Your task to perform on an android device: turn on javascript in the chrome app Image 0: 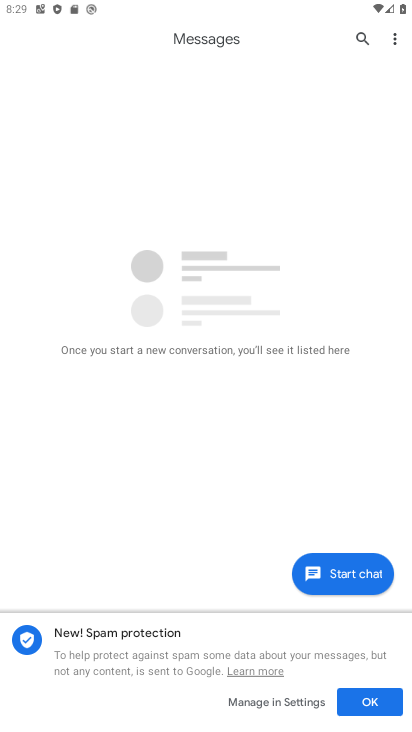
Step 0: press home button
Your task to perform on an android device: turn on javascript in the chrome app Image 1: 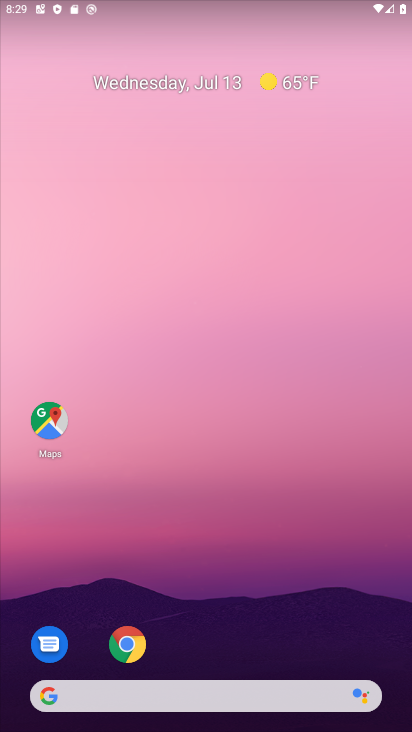
Step 1: drag from (307, 619) to (268, 154)
Your task to perform on an android device: turn on javascript in the chrome app Image 2: 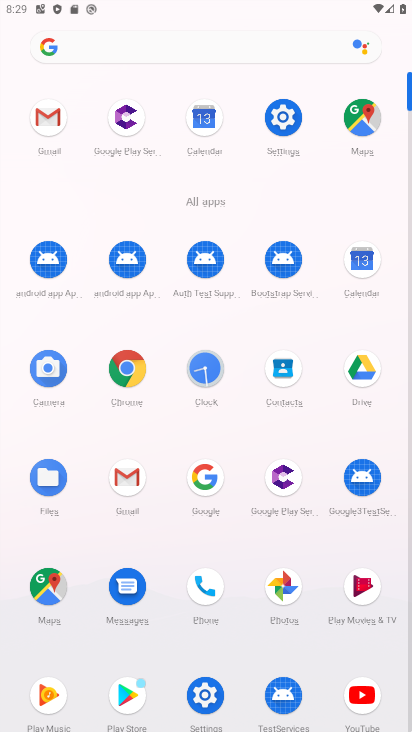
Step 2: click (125, 379)
Your task to perform on an android device: turn on javascript in the chrome app Image 3: 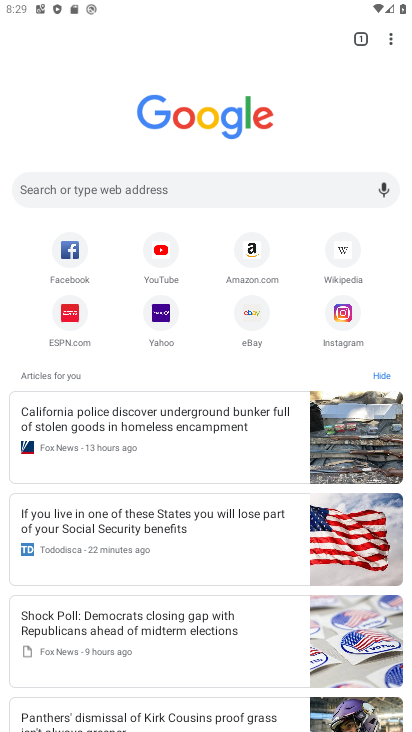
Step 3: drag from (384, 24) to (275, 331)
Your task to perform on an android device: turn on javascript in the chrome app Image 4: 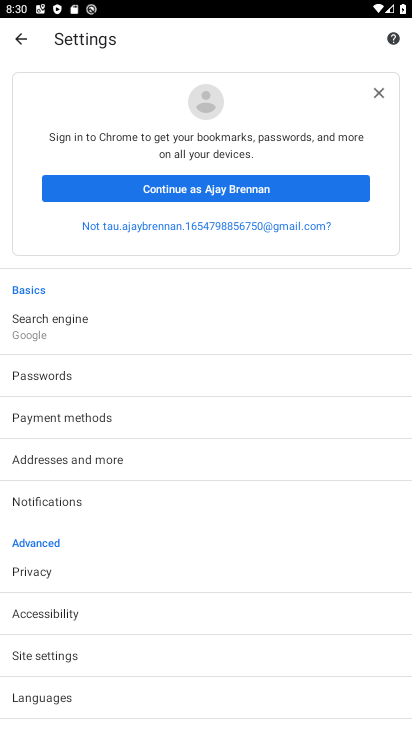
Step 4: drag from (217, 649) to (197, 251)
Your task to perform on an android device: turn on javascript in the chrome app Image 5: 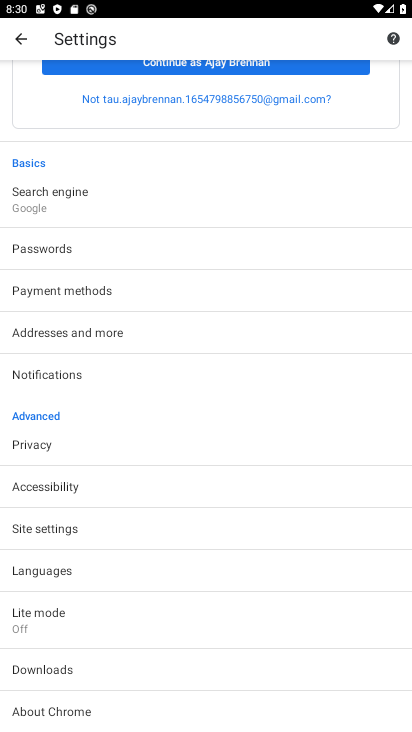
Step 5: click (62, 528)
Your task to perform on an android device: turn on javascript in the chrome app Image 6: 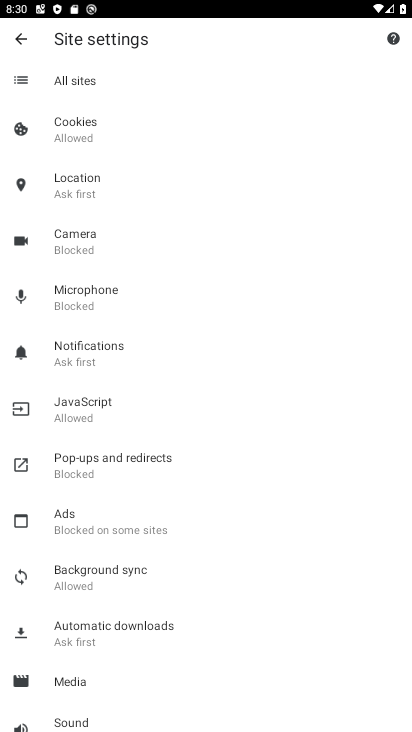
Step 6: click (108, 415)
Your task to perform on an android device: turn on javascript in the chrome app Image 7: 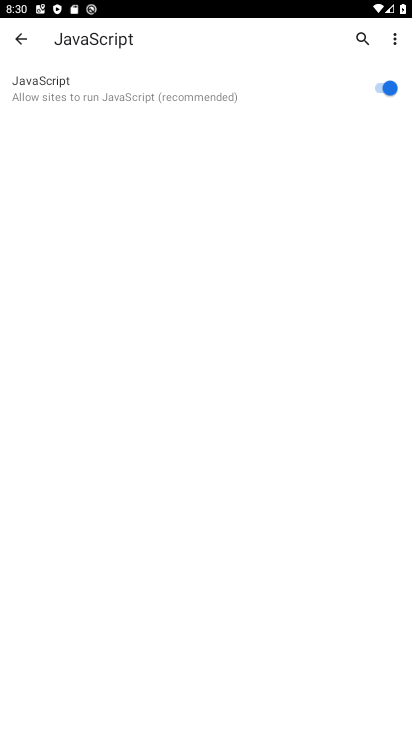
Step 7: task complete